Your task to perform on an android device: change the clock display to digital Image 0: 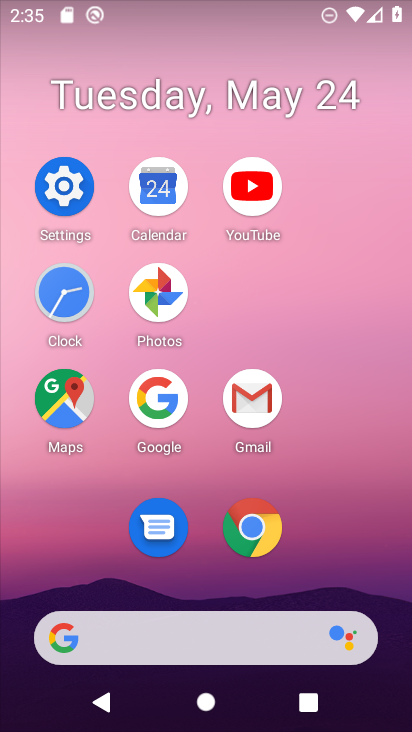
Step 0: click (49, 288)
Your task to perform on an android device: change the clock display to digital Image 1: 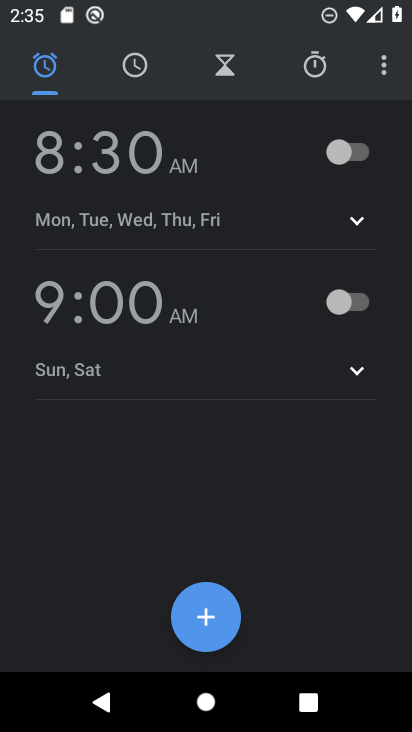
Step 1: click (381, 58)
Your task to perform on an android device: change the clock display to digital Image 2: 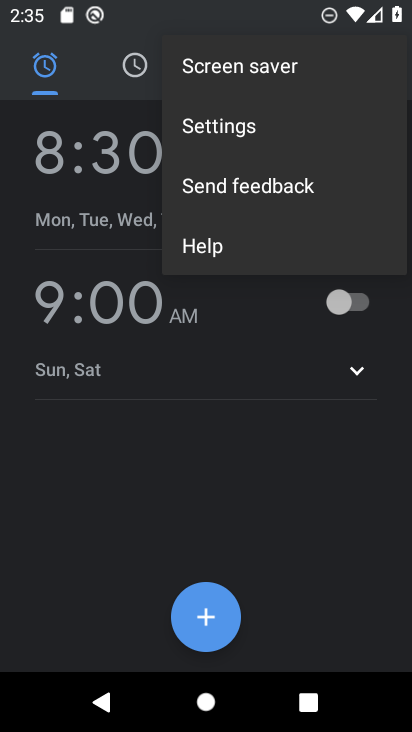
Step 2: click (245, 147)
Your task to perform on an android device: change the clock display to digital Image 3: 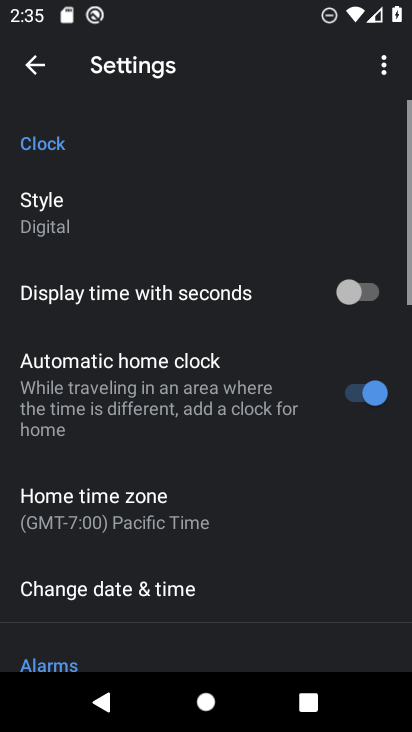
Step 3: click (85, 229)
Your task to perform on an android device: change the clock display to digital Image 4: 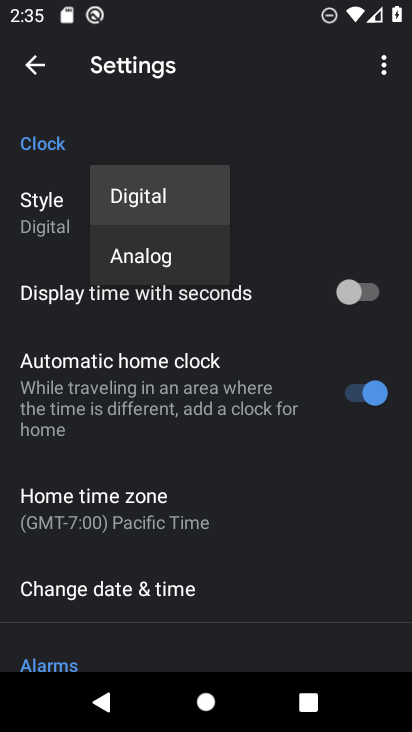
Step 4: task complete